Your task to perform on an android device: What's the news in Singapore? Image 0: 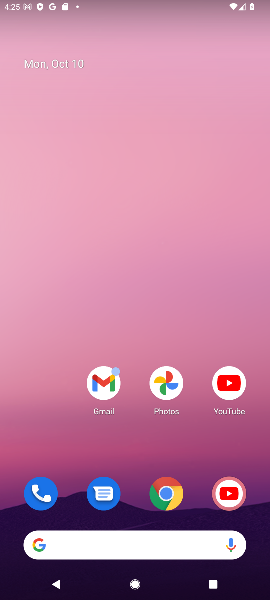
Step 0: type " news in Singapore"
Your task to perform on an android device: What's the news in Singapore? Image 1: 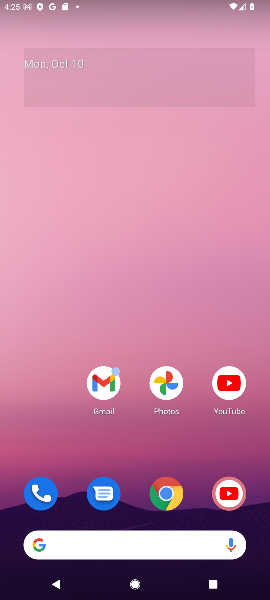
Step 1: click (147, 549)
Your task to perform on an android device: What's the news in Singapore? Image 2: 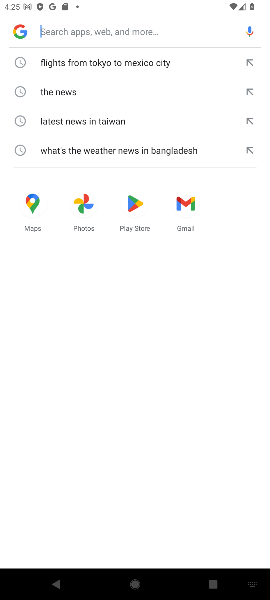
Step 2: type " news in Singapore"
Your task to perform on an android device: What's the news in Singapore? Image 3: 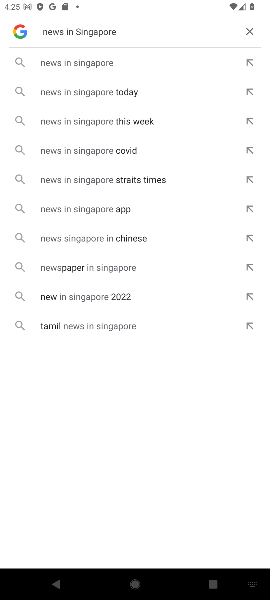
Step 3: click (129, 68)
Your task to perform on an android device: What's the news in Singapore? Image 4: 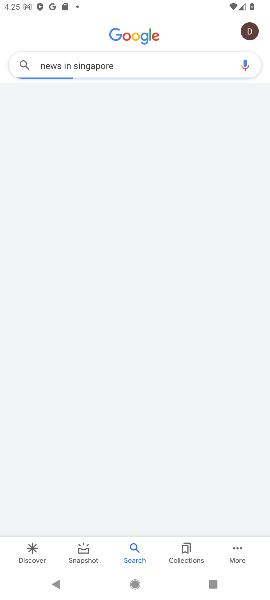
Step 4: task complete